Your task to perform on an android device: Search for sushi restaurants on Maps Image 0: 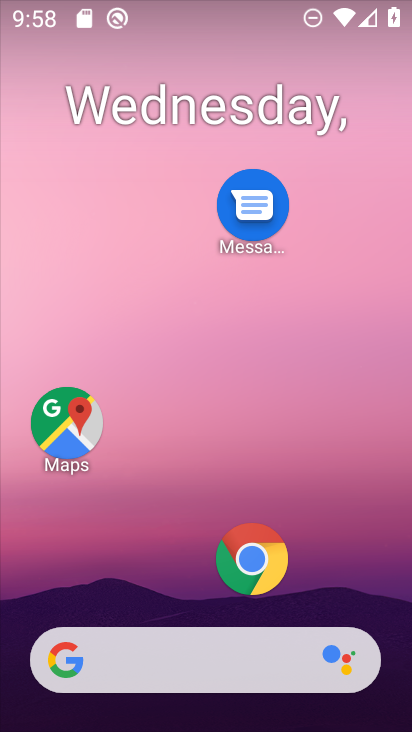
Step 0: drag from (150, 582) to (207, 206)
Your task to perform on an android device: Search for sushi restaurants on Maps Image 1: 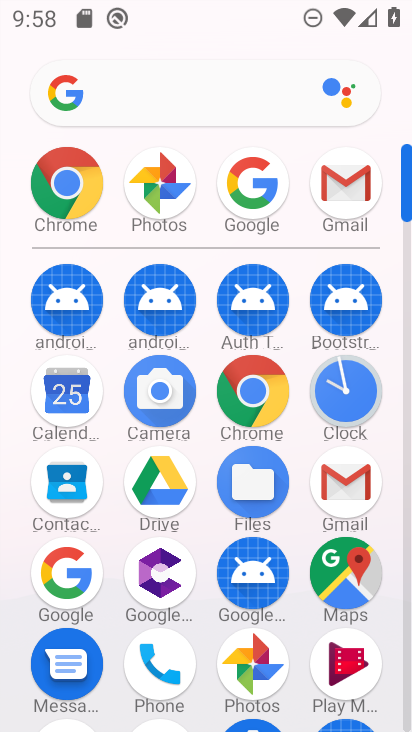
Step 1: click (356, 592)
Your task to perform on an android device: Search for sushi restaurants on Maps Image 2: 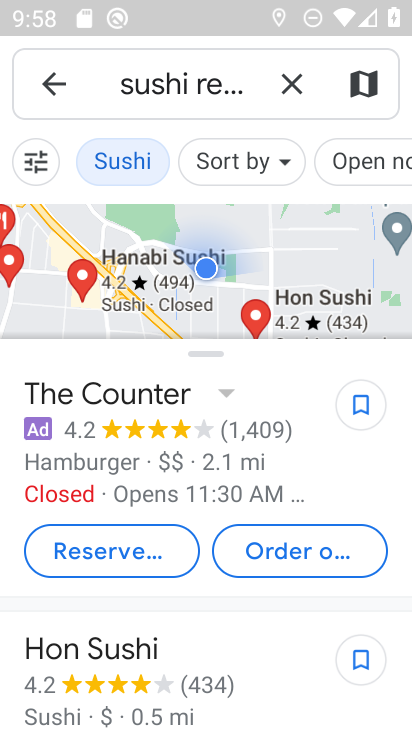
Step 2: task complete